Your task to perform on an android device: open a bookmark in the chrome app Image 0: 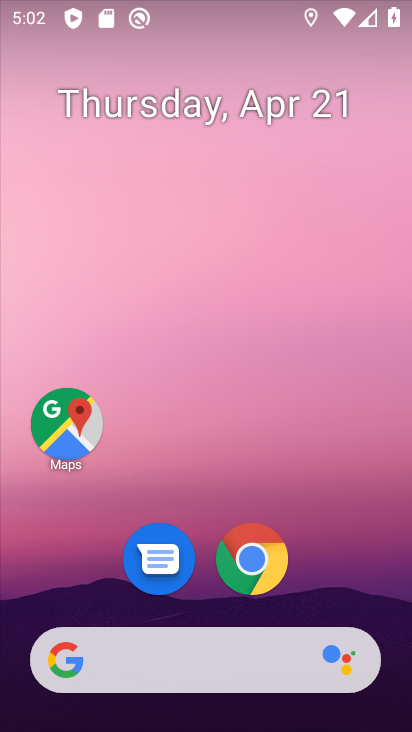
Step 0: click (325, 486)
Your task to perform on an android device: open a bookmark in the chrome app Image 1: 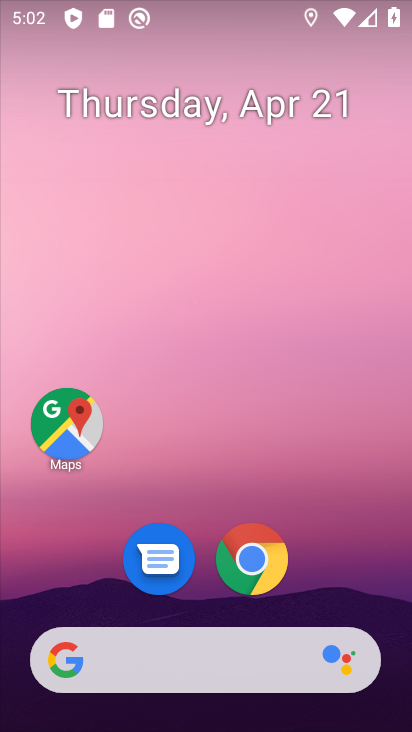
Step 1: drag from (368, 539) to (411, 207)
Your task to perform on an android device: open a bookmark in the chrome app Image 2: 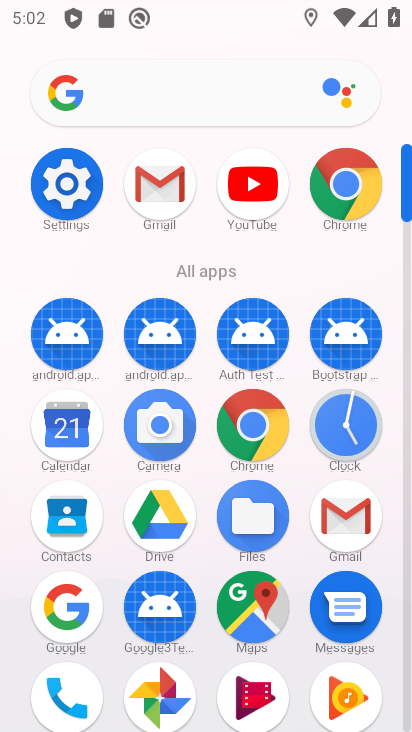
Step 2: click (369, 181)
Your task to perform on an android device: open a bookmark in the chrome app Image 3: 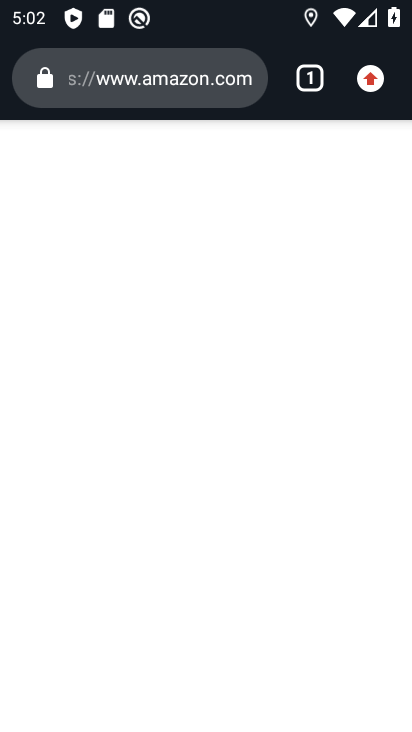
Step 3: click (374, 80)
Your task to perform on an android device: open a bookmark in the chrome app Image 4: 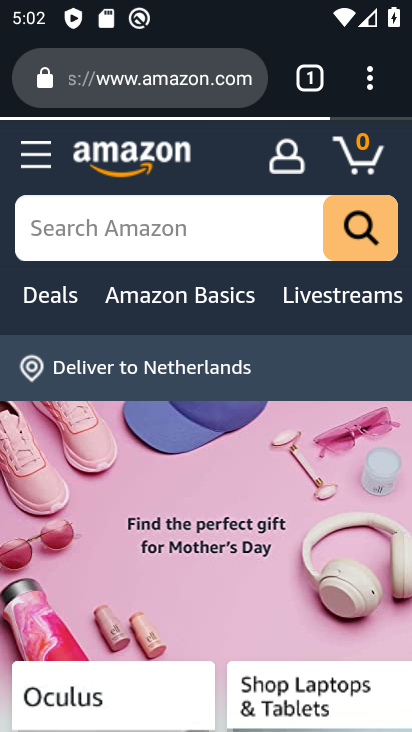
Step 4: task complete